Your task to perform on an android device: toggle priority inbox in the gmail app Image 0: 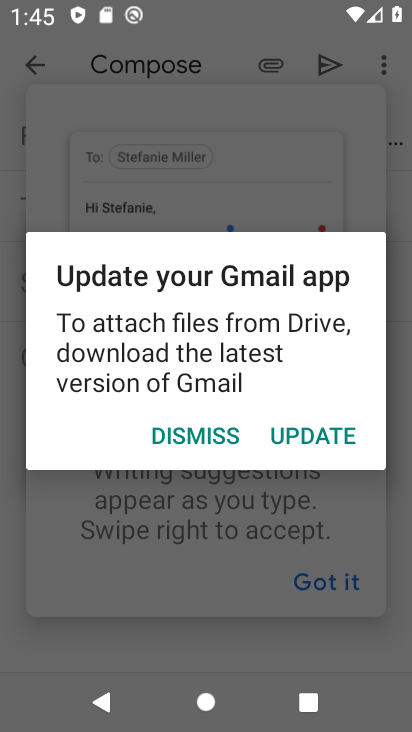
Step 0: press home button
Your task to perform on an android device: toggle priority inbox in the gmail app Image 1: 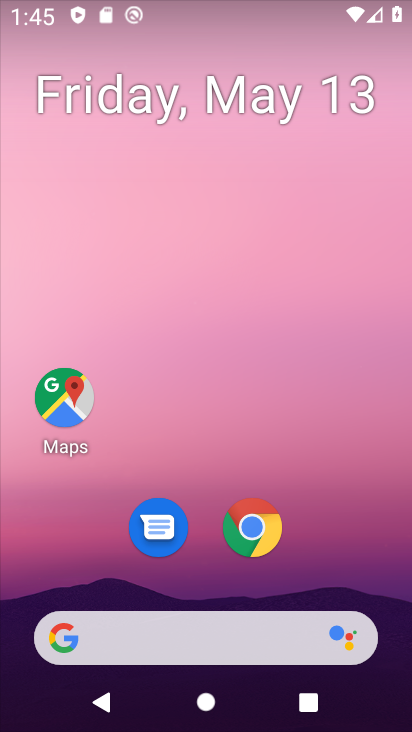
Step 1: drag from (208, 580) to (184, 35)
Your task to perform on an android device: toggle priority inbox in the gmail app Image 2: 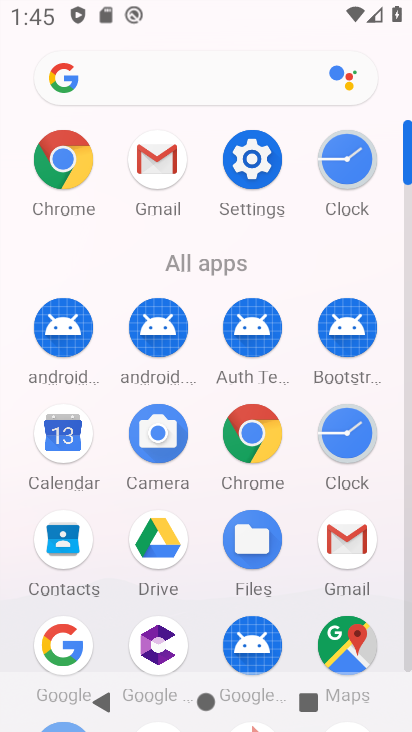
Step 2: click (147, 156)
Your task to perform on an android device: toggle priority inbox in the gmail app Image 3: 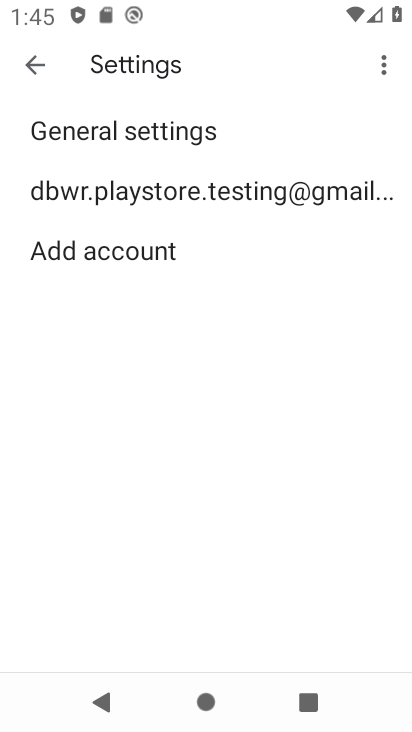
Step 3: click (177, 194)
Your task to perform on an android device: toggle priority inbox in the gmail app Image 4: 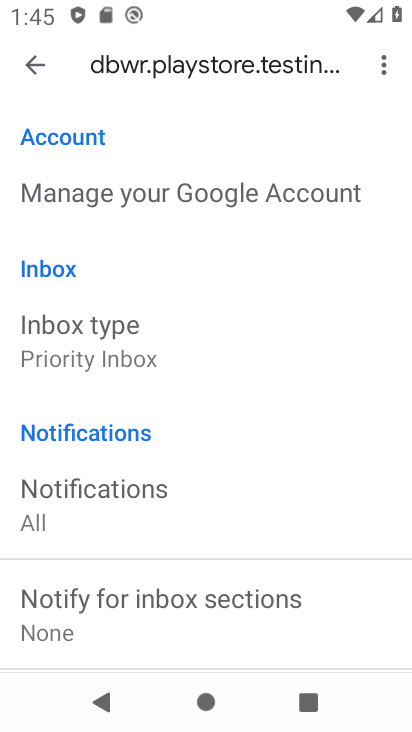
Step 4: click (183, 352)
Your task to perform on an android device: toggle priority inbox in the gmail app Image 5: 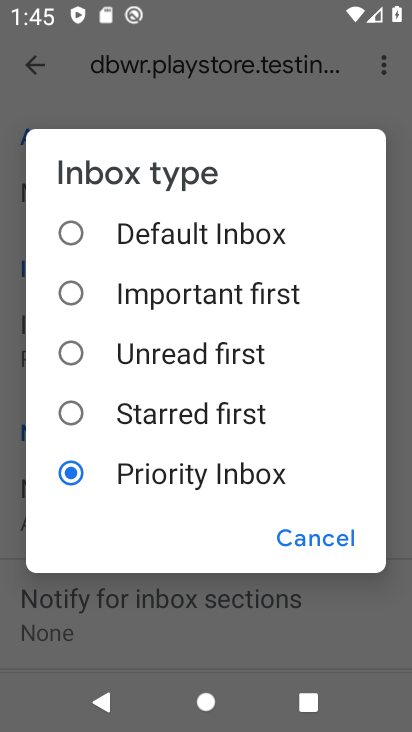
Step 5: task complete